Your task to perform on an android device: toggle airplane mode Image 0: 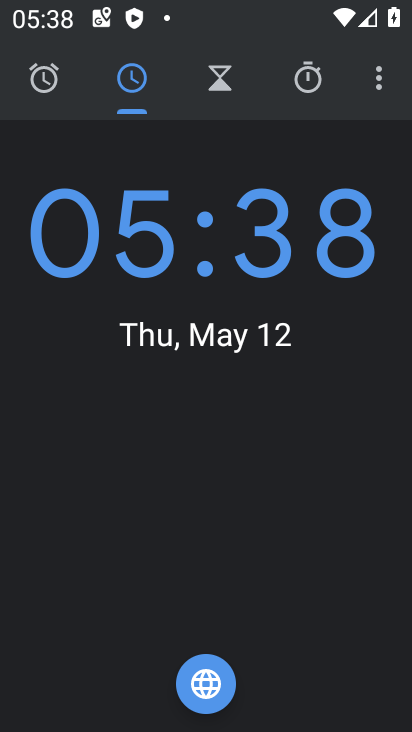
Step 0: press home button
Your task to perform on an android device: toggle airplane mode Image 1: 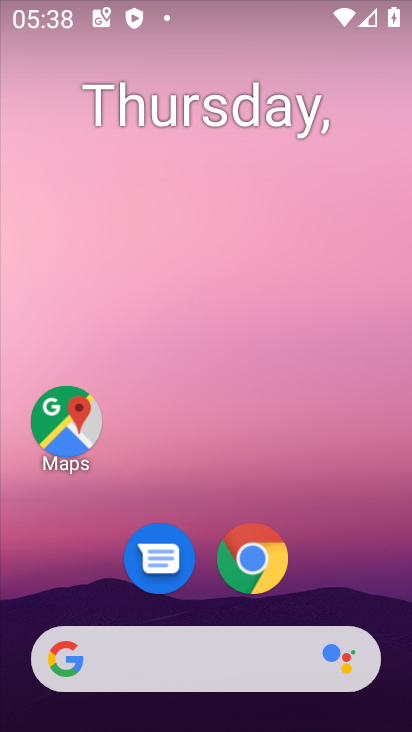
Step 1: drag from (306, 567) to (314, 128)
Your task to perform on an android device: toggle airplane mode Image 2: 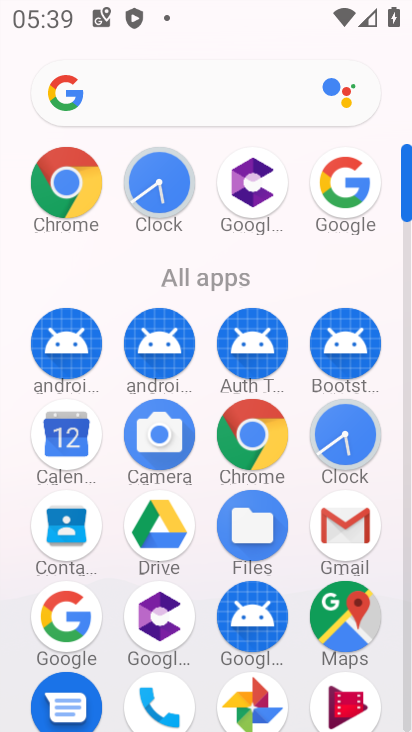
Step 2: drag from (195, 587) to (258, 237)
Your task to perform on an android device: toggle airplane mode Image 3: 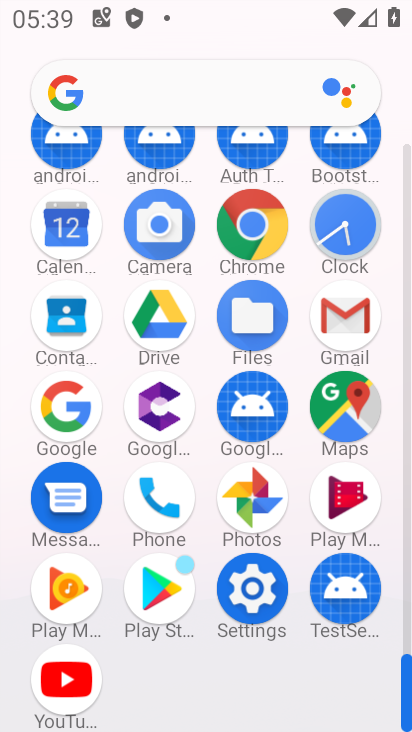
Step 3: click (250, 598)
Your task to perform on an android device: toggle airplane mode Image 4: 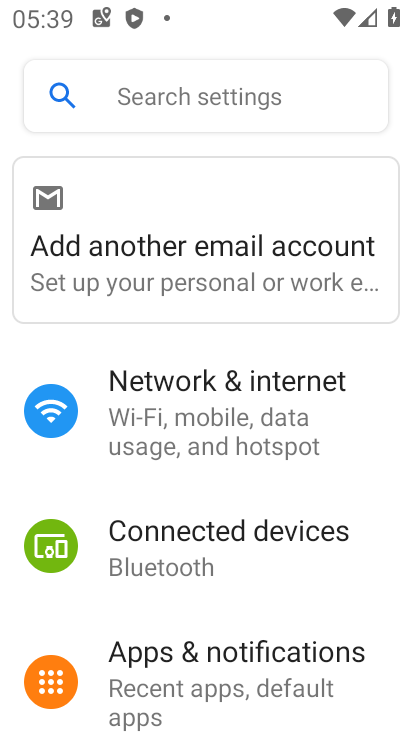
Step 4: click (209, 445)
Your task to perform on an android device: toggle airplane mode Image 5: 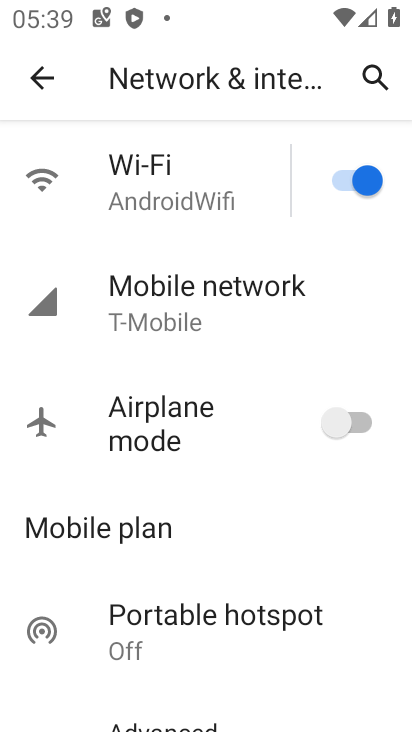
Step 5: drag from (241, 522) to (237, 247)
Your task to perform on an android device: toggle airplane mode Image 6: 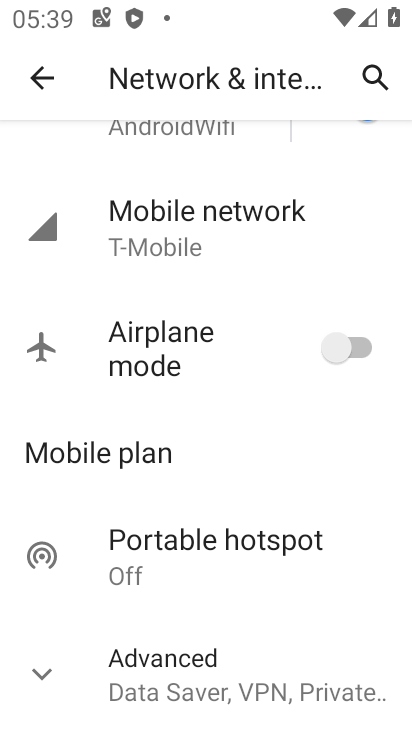
Step 6: drag from (207, 559) to (229, 363)
Your task to perform on an android device: toggle airplane mode Image 7: 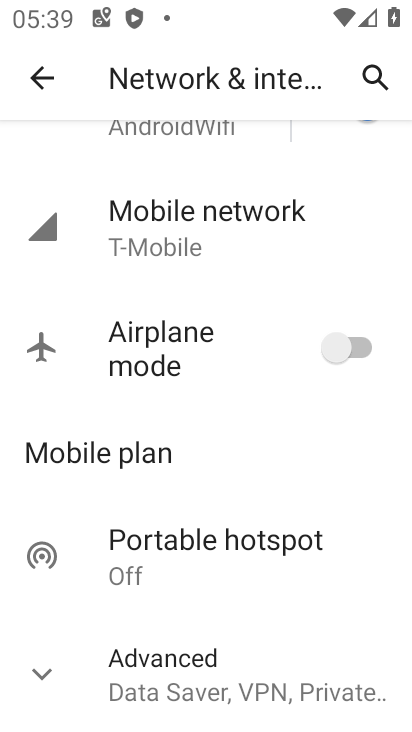
Step 7: click (376, 348)
Your task to perform on an android device: toggle airplane mode Image 8: 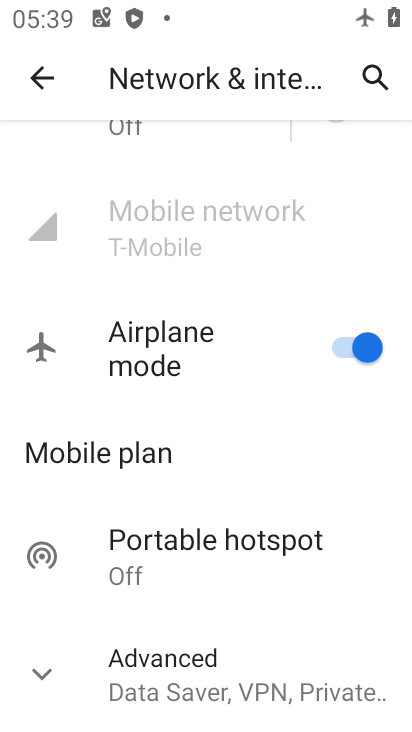
Step 8: task complete